Your task to perform on an android device: Open the phone app and click the voicemail tab. Image 0: 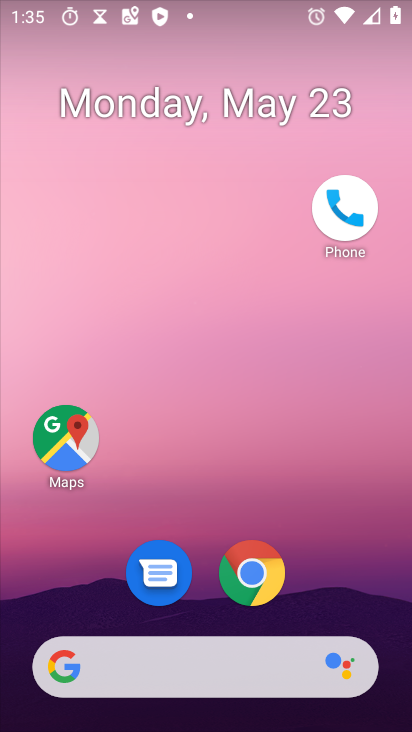
Step 0: press home button
Your task to perform on an android device: Open the phone app and click the voicemail tab. Image 1: 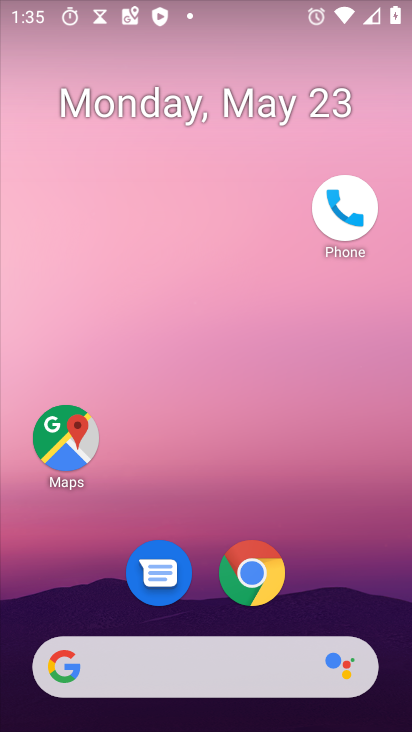
Step 1: drag from (158, 668) to (330, 65)
Your task to perform on an android device: Open the phone app and click the voicemail tab. Image 2: 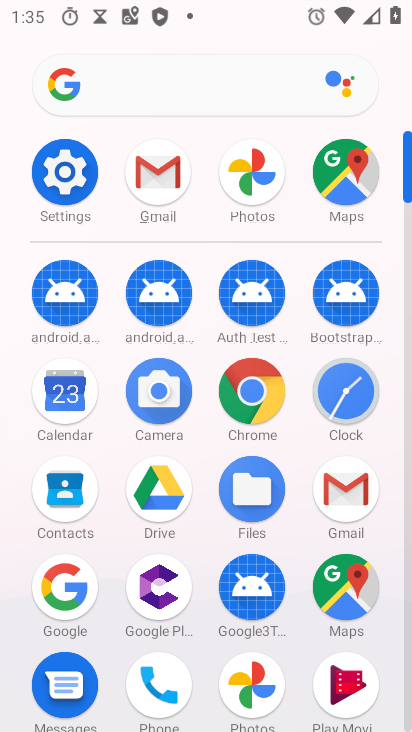
Step 2: click (172, 674)
Your task to perform on an android device: Open the phone app and click the voicemail tab. Image 3: 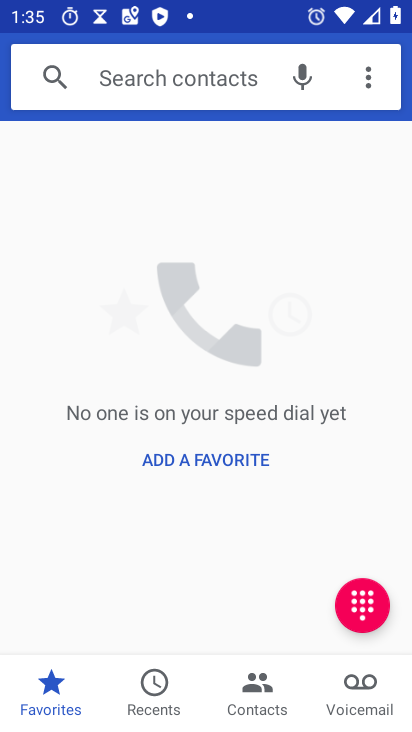
Step 3: click (355, 708)
Your task to perform on an android device: Open the phone app and click the voicemail tab. Image 4: 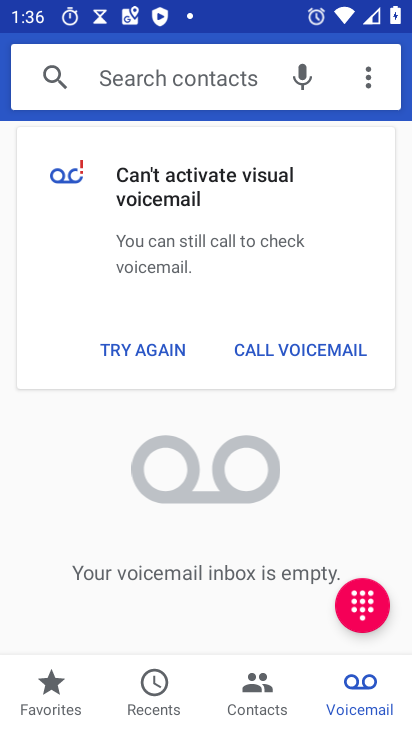
Step 4: task complete